Your task to perform on an android device: add a label to a message in the gmail app Image 0: 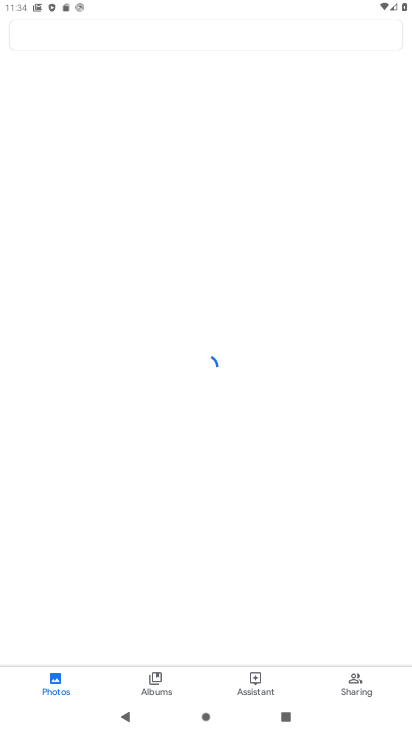
Step 0: press home button
Your task to perform on an android device: add a label to a message in the gmail app Image 1: 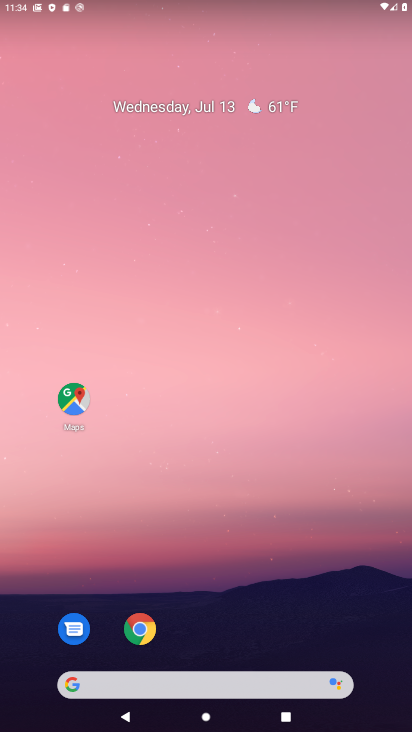
Step 1: drag from (189, 658) to (163, 161)
Your task to perform on an android device: add a label to a message in the gmail app Image 2: 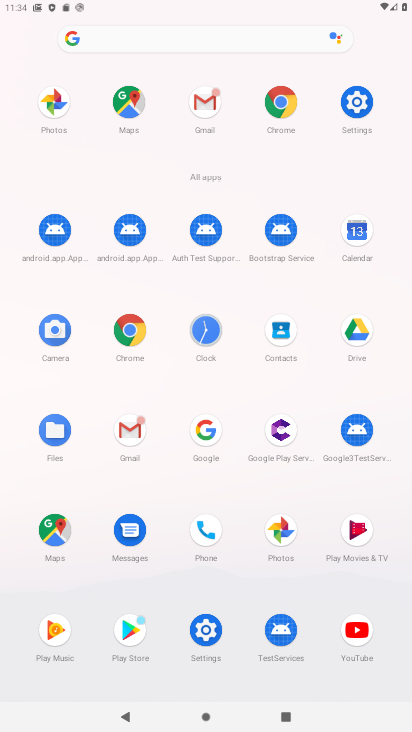
Step 2: click (123, 431)
Your task to perform on an android device: add a label to a message in the gmail app Image 3: 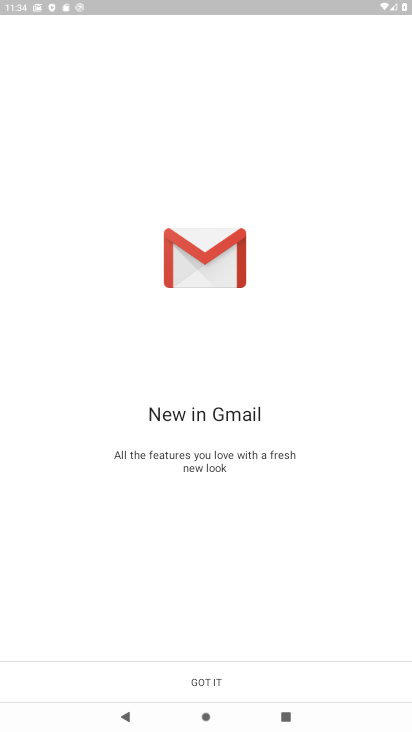
Step 3: click (198, 668)
Your task to perform on an android device: add a label to a message in the gmail app Image 4: 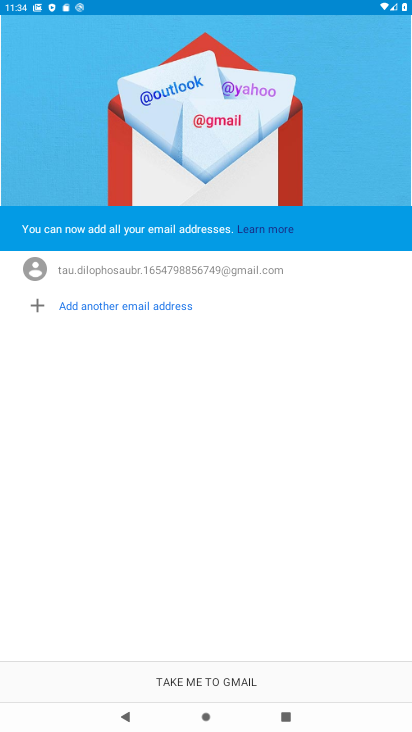
Step 4: click (198, 668)
Your task to perform on an android device: add a label to a message in the gmail app Image 5: 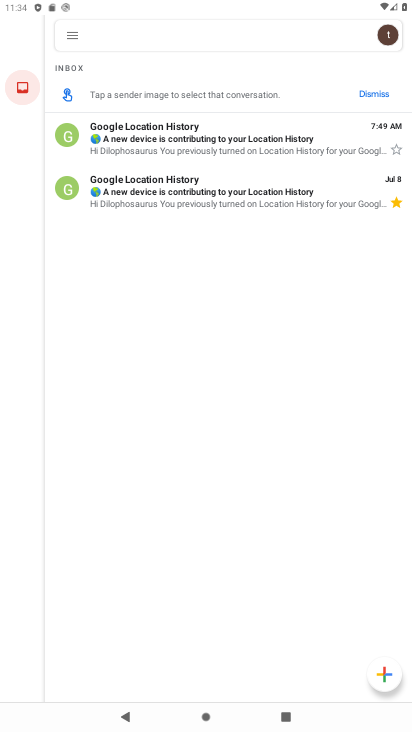
Step 5: click (228, 123)
Your task to perform on an android device: add a label to a message in the gmail app Image 6: 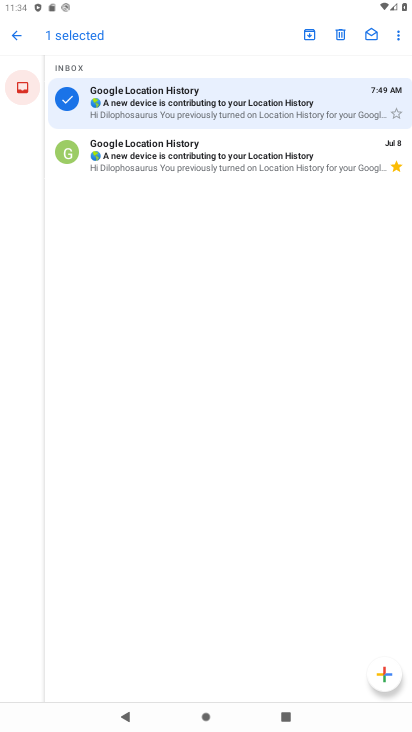
Step 6: click (397, 39)
Your task to perform on an android device: add a label to a message in the gmail app Image 7: 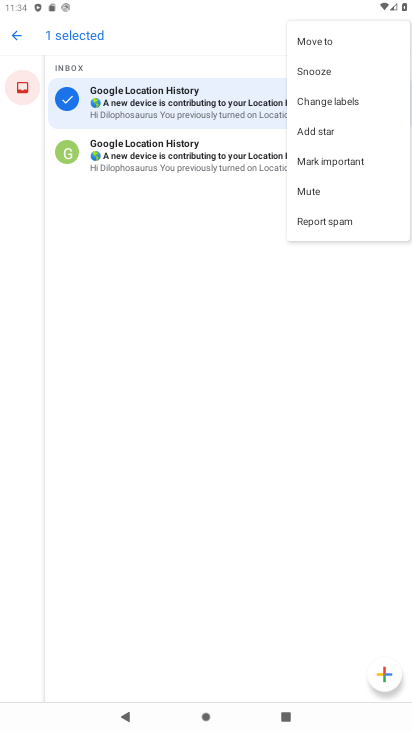
Step 7: click (322, 95)
Your task to perform on an android device: add a label to a message in the gmail app Image 8: 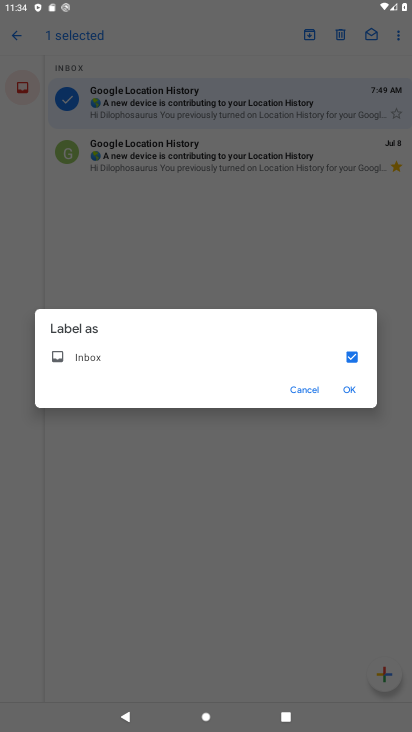
Step 8: click (350, 359)
Your task to perform on an android device: add a label to a message in the gmail app Image 9: 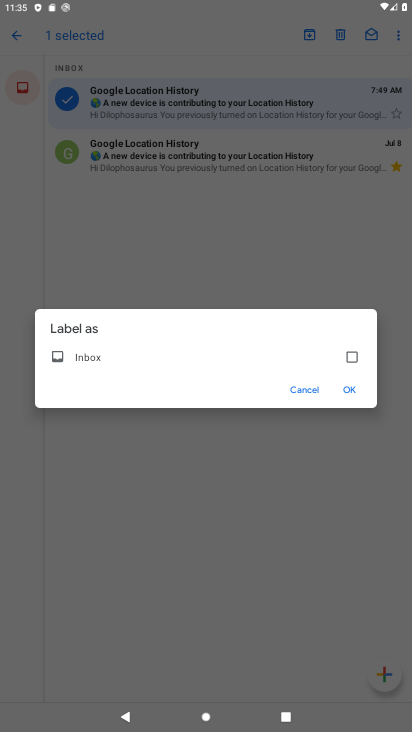
Step 9: click (345, 384)
Your task to perform on an android device: add a label to a message in the gmail app Image 10: 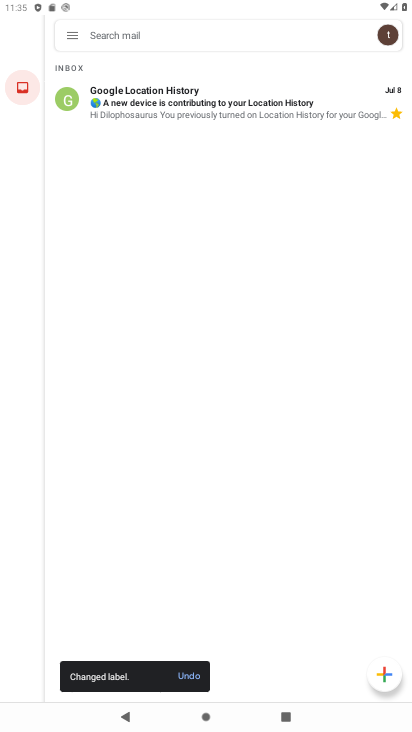
Step 10: task complete